Your task to perform on an android device: change the clock display to analog Image 0: 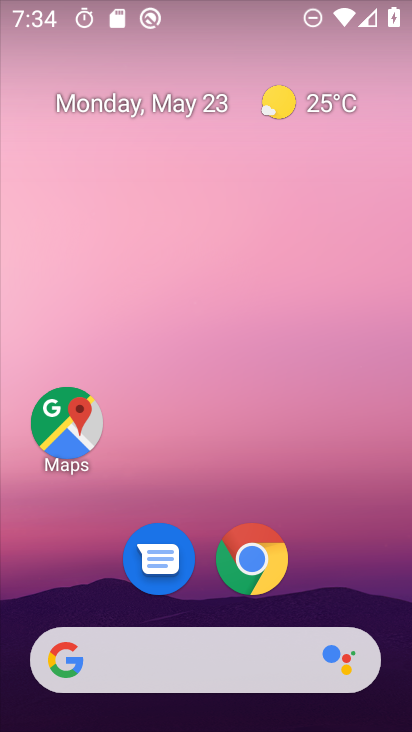
Step 0: drag from (395, 582) to (272, 47)
Your task to perform on an android device: change the clock display to analog Image 1: 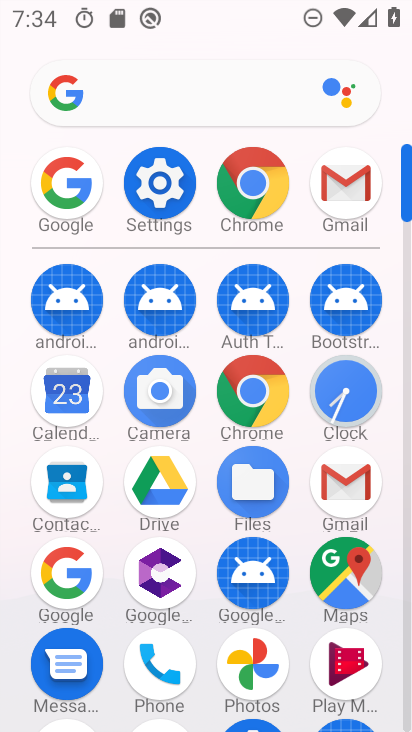
Step 1: click (349, 392)
Your task to perform on an android device: change the clock display to analog Image 2: 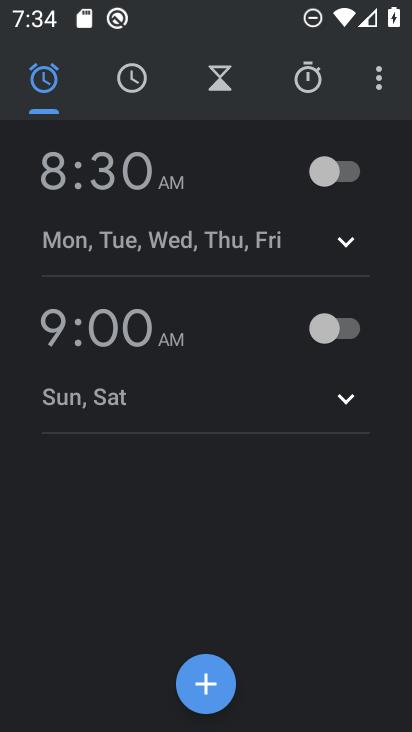
Step 2: click (372, 74)
Your task to perform on an android device: change the clock display to analog Image 3: 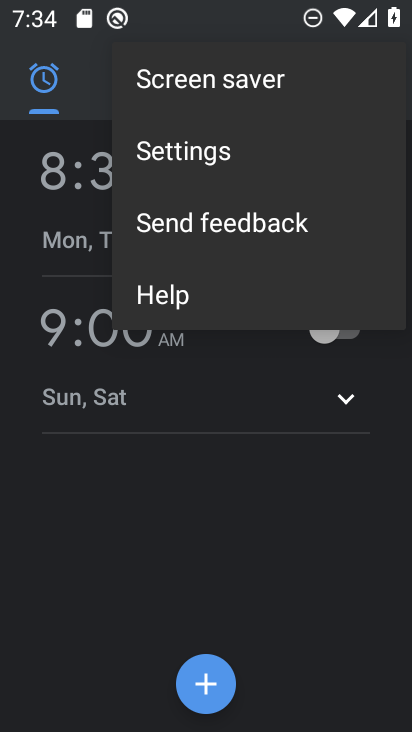
Step 3: click (248, 133)
Your task to perform on an android device: change the clock display to analog Image 4: 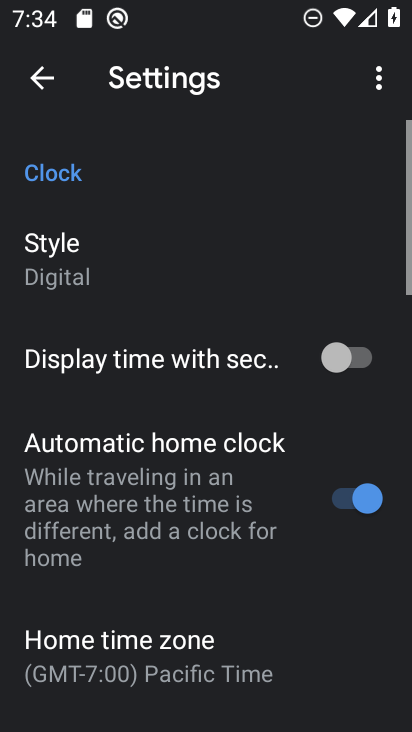
Step 4: click (100, 254)
Your task to perform on an android device: change the clock display to analog Image 5: 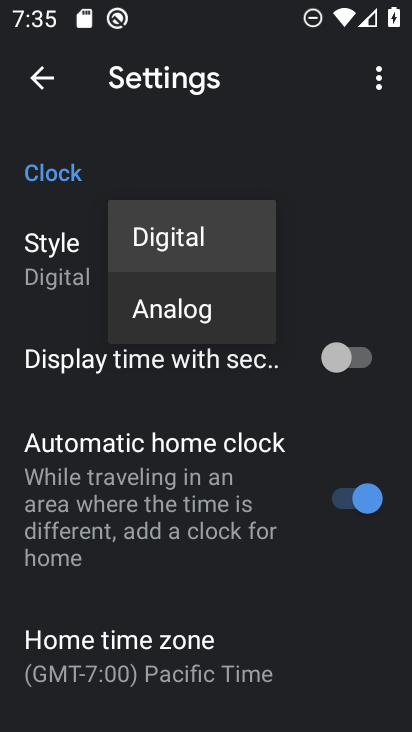
Step 5: click (142, 315)
Your task to perform on an android device: change the clock display to analog Image 6: 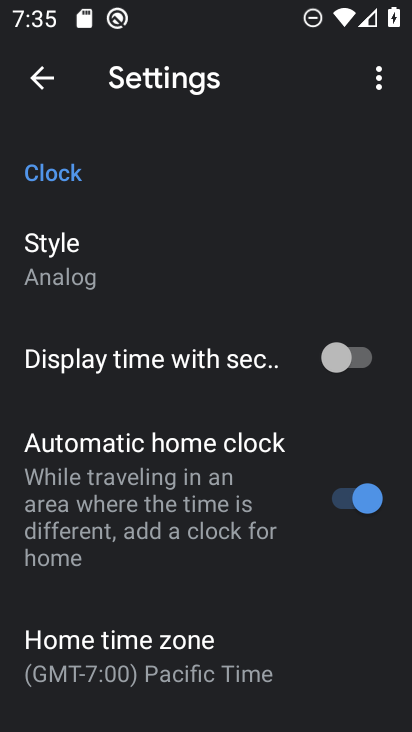
Step 6: task complete